Your task to perform on an android device: snooze an email in the gmail app Image 0: 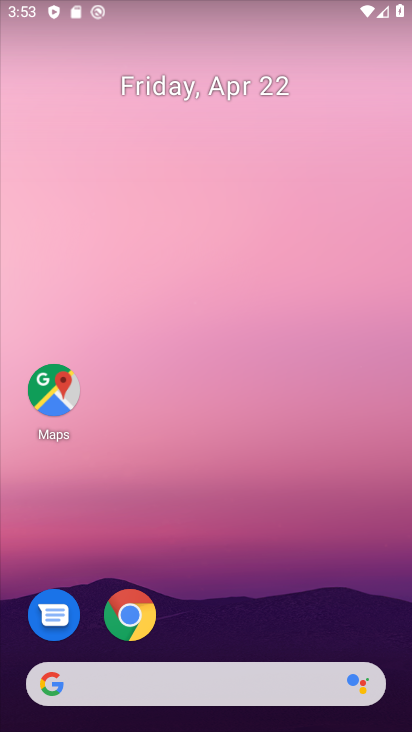
Step 0: drag from (241, 625) to (259, 203)
Your task to perform on an android device: snooze an email in the gmail app Image 1: 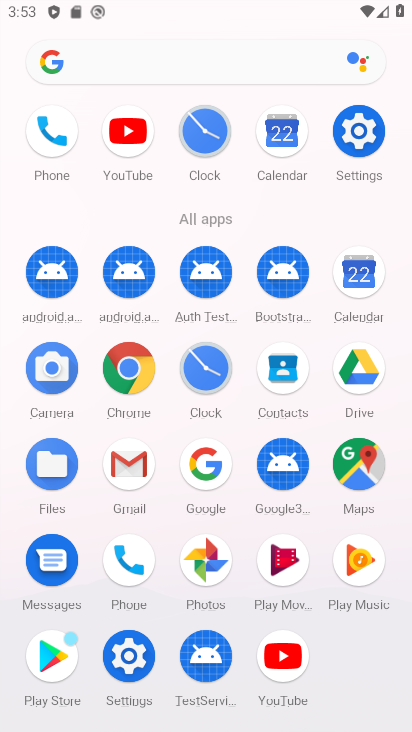
Step 1: click (123, 486)
Your task to perform on an android device: snooze an email in the gmail app Image 2: 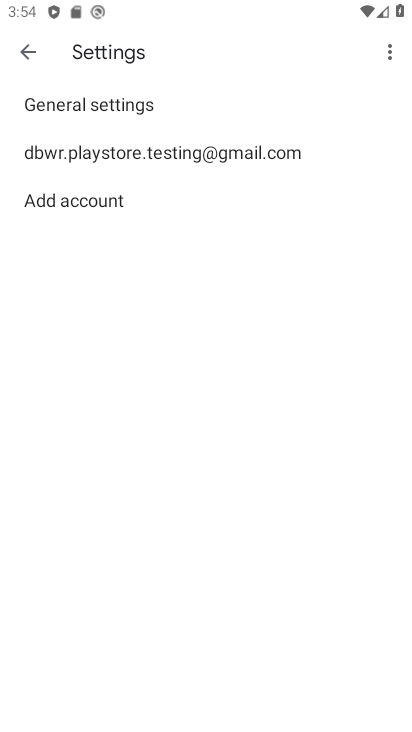
Step 2: press home button
Your task to perform on an android device: snooze an email in the gmail app Image 3: 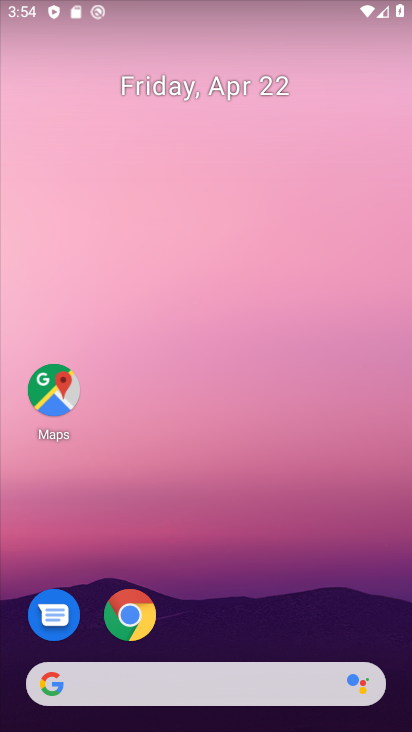
Step 3: drag from (193, 629) to (209, 167)
Your task to perform on an android device: snooze an email in the gmail app Image 4: 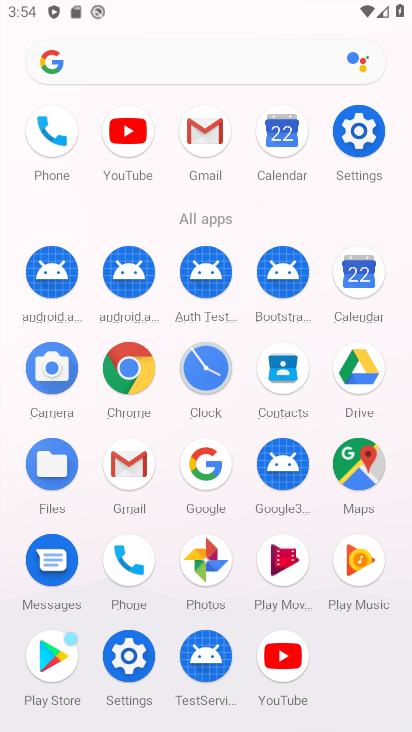
Step 4: click (202, 143)
Your task to perform on an android device: snooze an email in the gmail app Image 5: 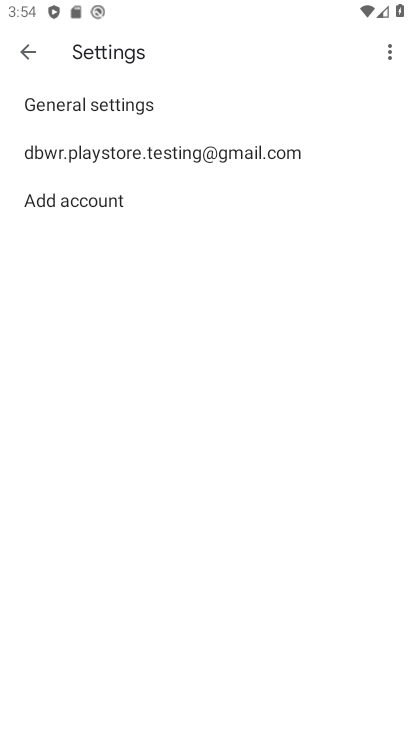
Step 5: press back button
Your task to perform on an android device: snooze an email in the gmail app Image 6: 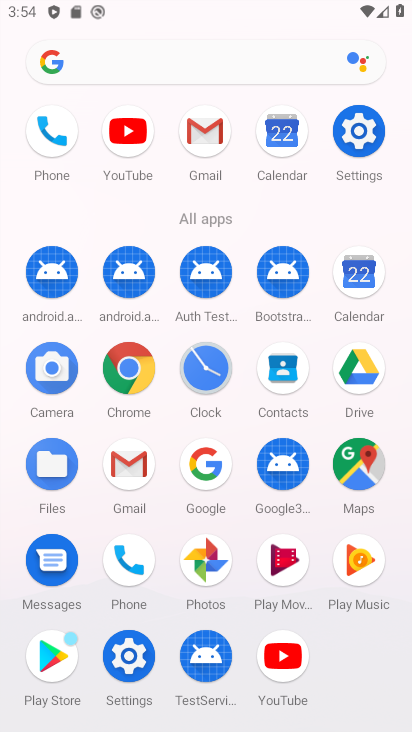
Step 6: click (222, 124)
Your task to perform on an android device: snooze an email in the gmail app Image 7: 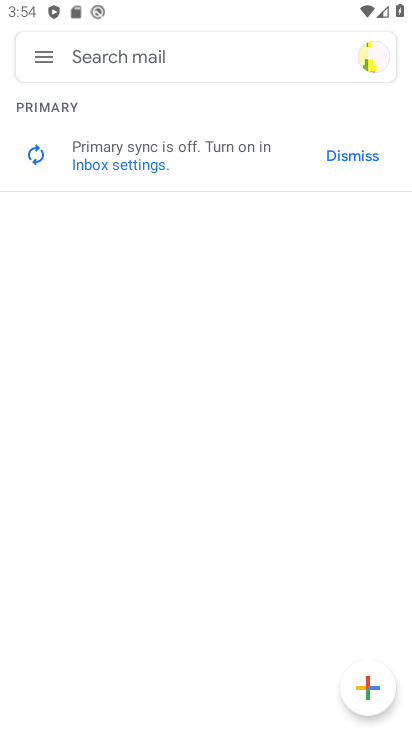
Step 7: click (30, 50)
Your task to perform on an android device: snooze an email in the gmail app Image 8: 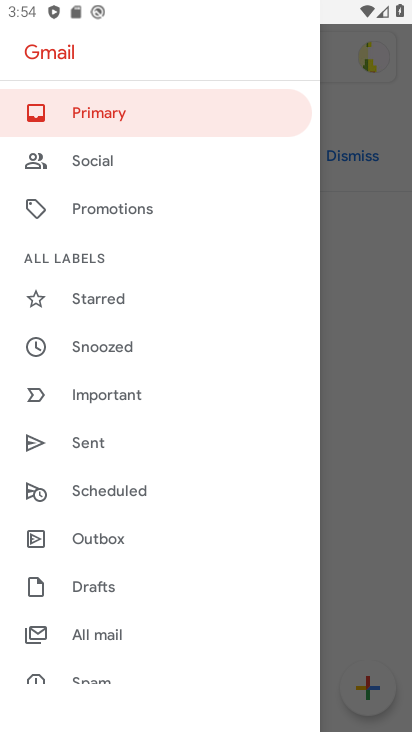
Step 8: click (116, 109)
Your task to perform on an android device: snooze an email in the gmail app Image 9: 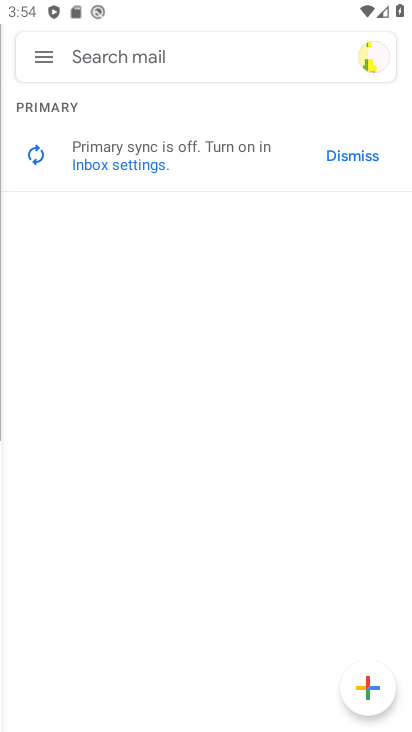
Step 9: click (382, 294)
Your task to perform on an android device: snooze an email in the gmail app Image 10: 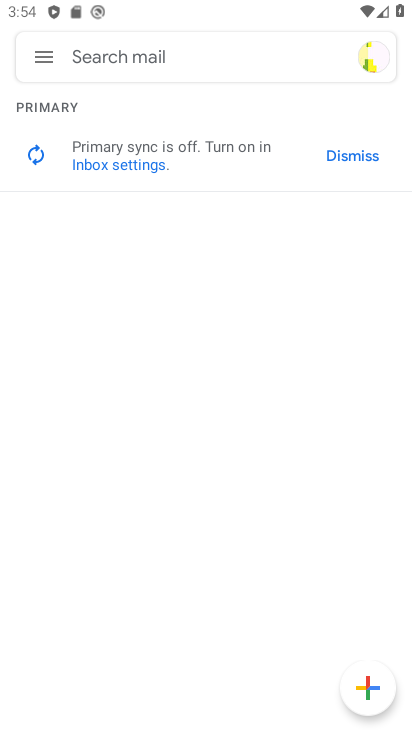
Step 10: click (49, 62)
Your task to perform on an android device: snooze an email in the gmail app Image 11: 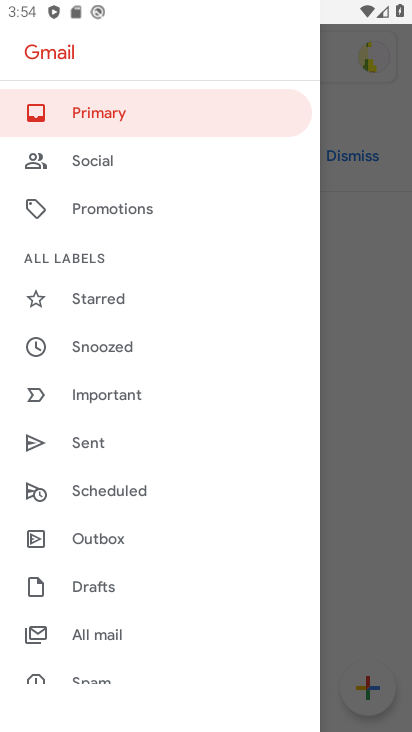
Step 11: click (139, 631)
Your task to perform on an android device: snooze an email in the gmail app Image 12: 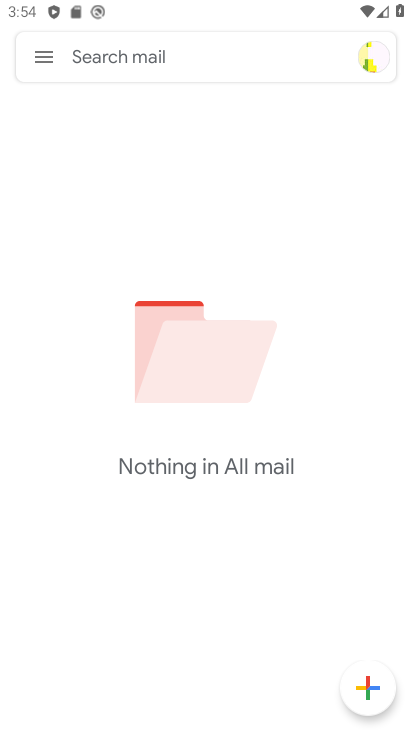
Step 12: task complete